Your task to perform on an android device: Open maps Image 0: 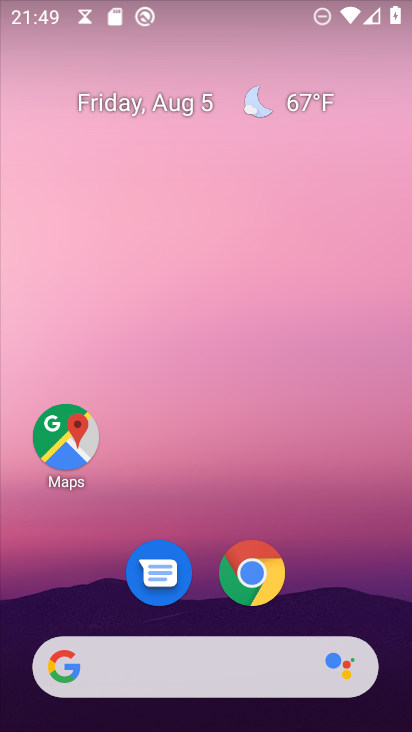
Step 0: click (68, 437)
Your task to perform on an android device: Open maps Image 1: 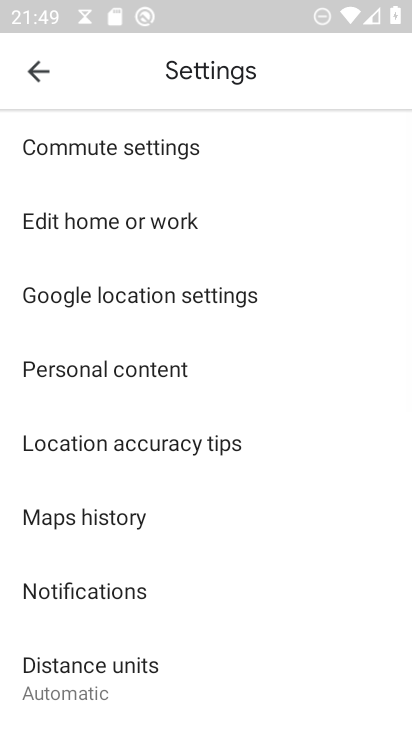
Step 1: task complete